Your task to perform on an android device: Open Google Chrome and click the shortcut for Amazon.com Image 0: 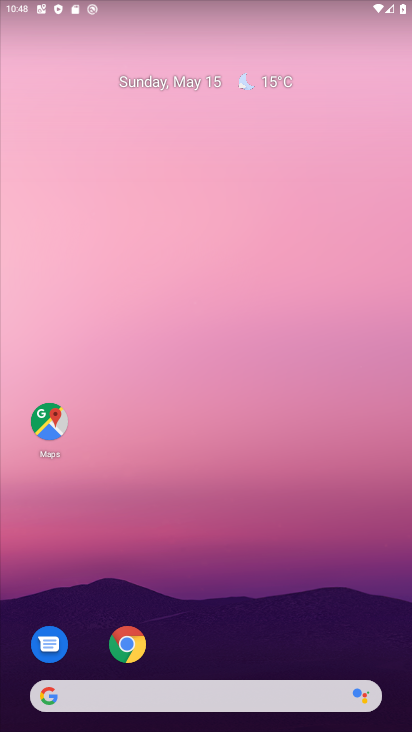
Step 0: click (112, 637)
Your task to perform on an android device: Open Google Chrome and click the shortcut for Amazon.com Image 1: 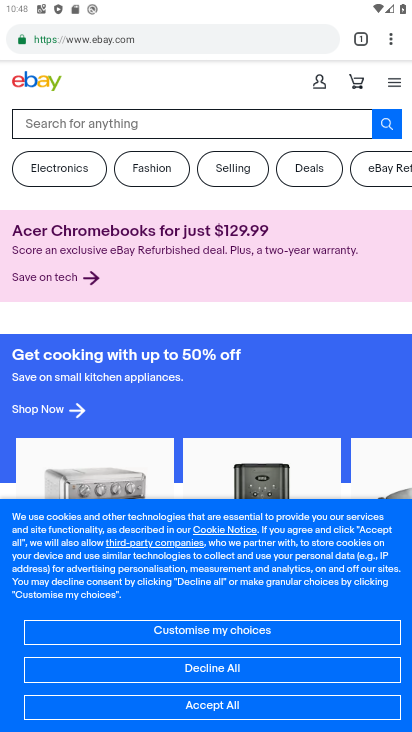
Step 1: click (387, 41)
Your task to perform on an android device: Open Google Chrome and click the shortcut for Amazon.com Image 2: 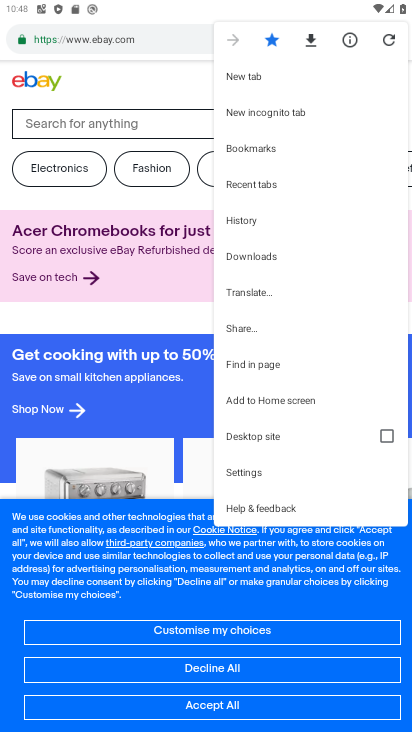
Step 2: click (146, 139)
Your task to perform on an android device: Open Google Chrome and click the shortcut for Amazon.com Image 3: 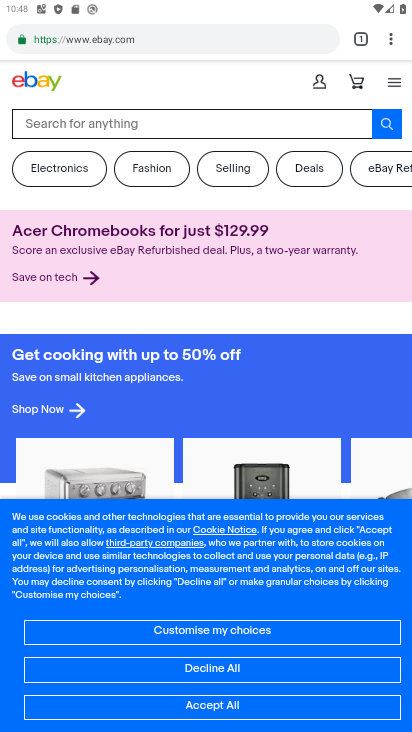
Step 3: click (359, 44)
Your task to perform on an android device: Open Google Chrome and click the shortcut for Amazon.com Image 4: 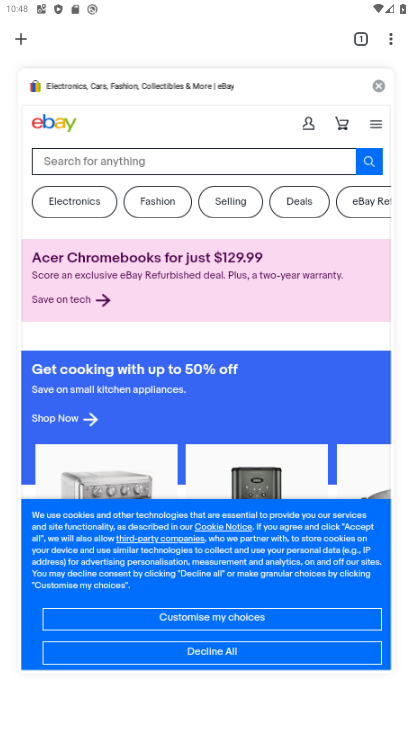
Step 4: click (385, 86)
Your task to perform on an android device: Open Google Chrome and click the shortcut for Amazon.com Image 5: 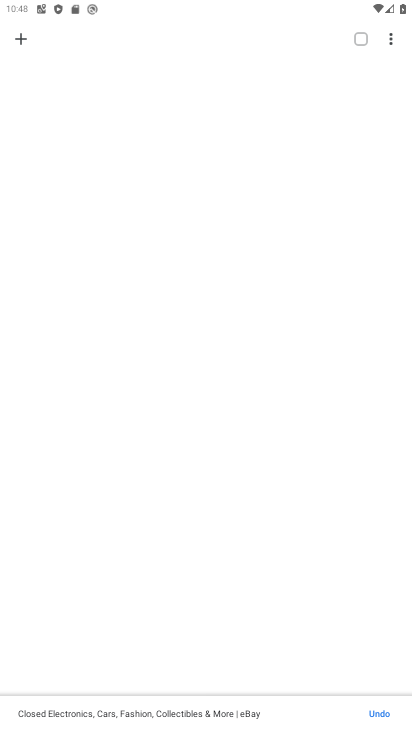
Step 5: click (22, 32)
Your task to perform on an android device: Open Google Chrome and click the shortcut for Amazon.com Image 6: 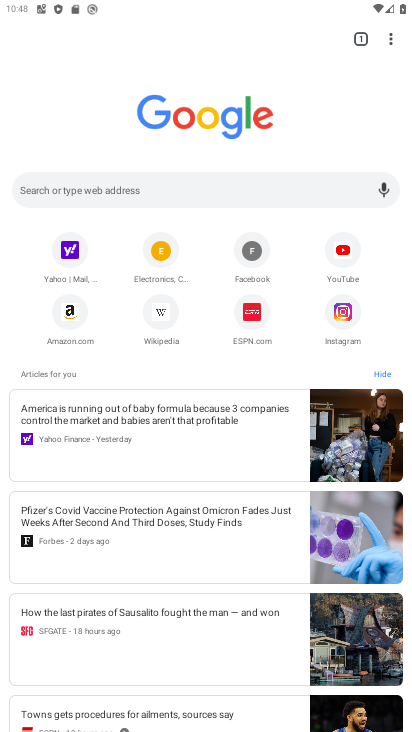
Step 6: click (63, 305)
Your task to perform on an android device: Open Google Chrome and click the shortcut for Amazon.com Image 7: 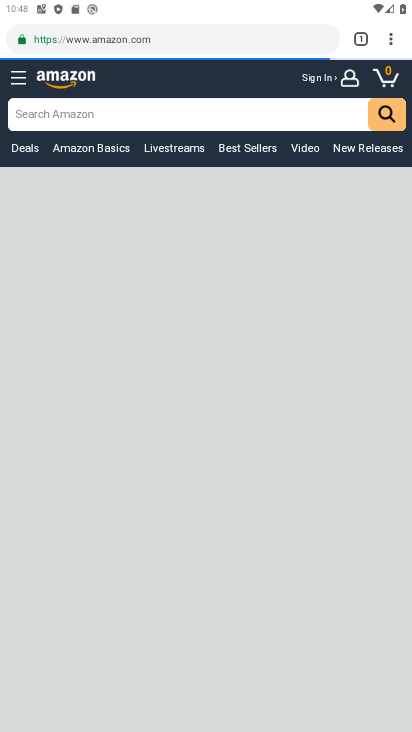
Step 7: task complete